Your task to perform on an android device: Set the phone to "Do not disturb". Image 0: 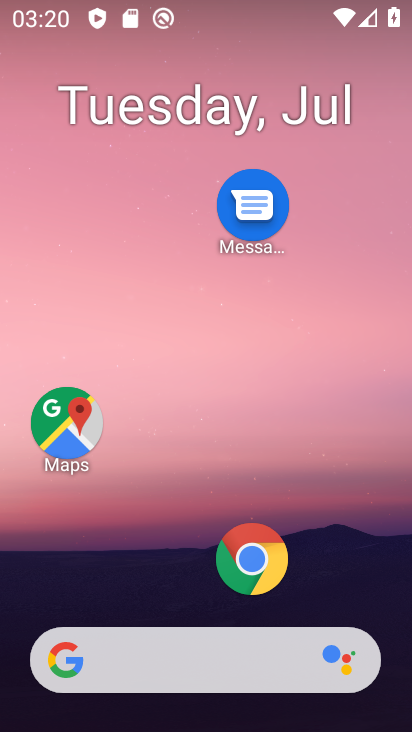
Step 0: drag from (189, 10) to (183, 510)
Your task to perform on an android device: Set the phone to "Do not disturb". Image 1: 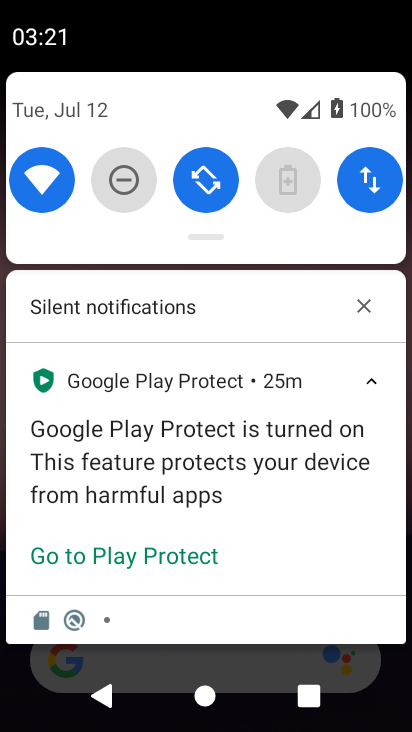
Step 1: click (128, 175)
Your task to perform on an android device: Set the phone to "Do not disturb". Image 2: 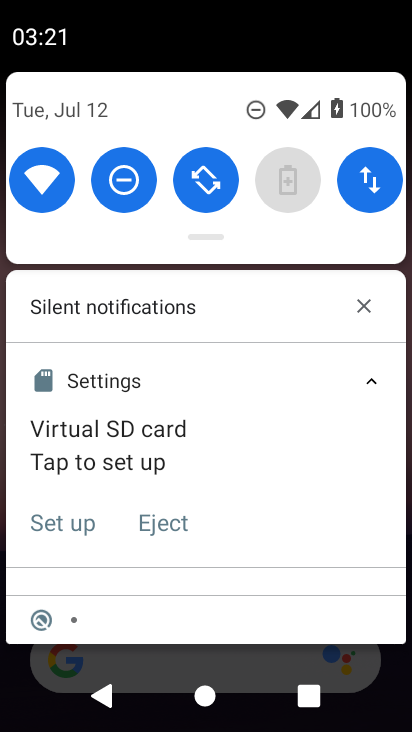
Step 2: task complete